Your task to perform on an android device: move a message to another label in the gmail app Image 0: 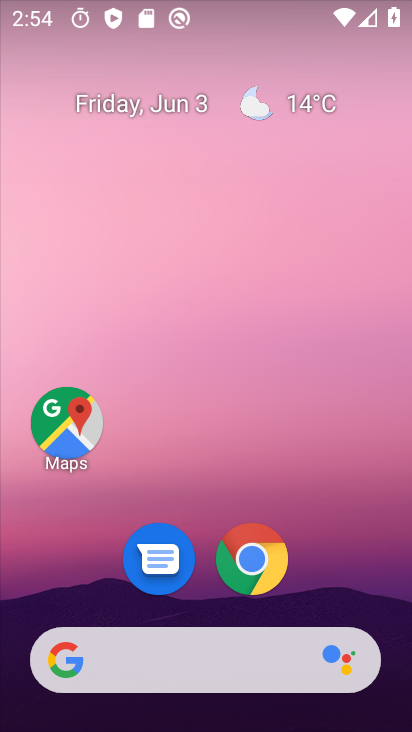
Step 0: drag from (216, 622) to (379, 682)
Your task to perform on an android device: move a message to another label in the gmail app Image 1: 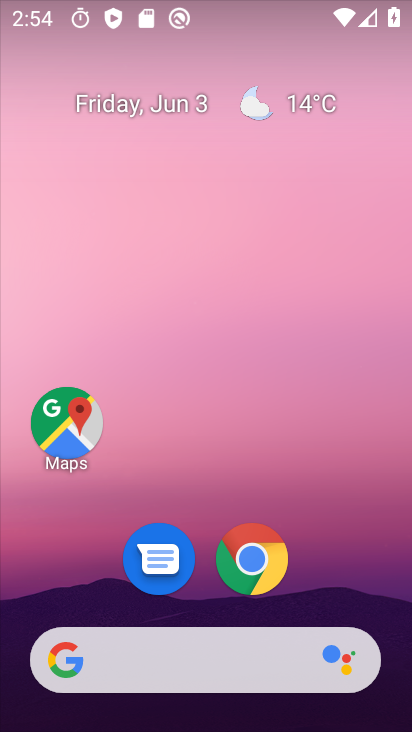
Step 1: drag from (219, 612) to (181, 19)
Your task to perform on an android device: move a message to another label in the gmail app Image 2: 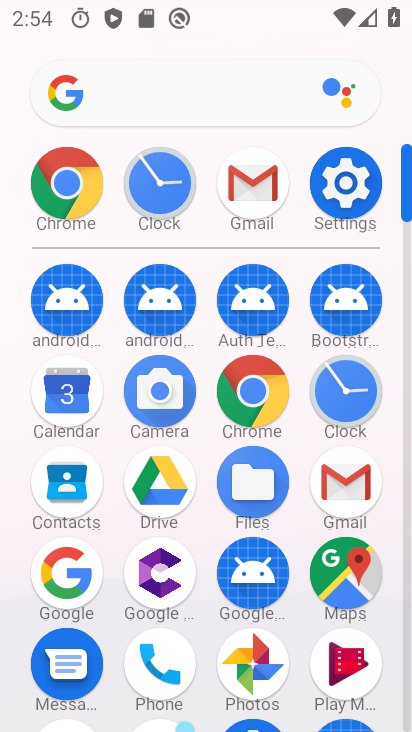
Step 2: click (362, 463)
Your task to perform on an android device: move a message to another label in the gmail app Image 3: 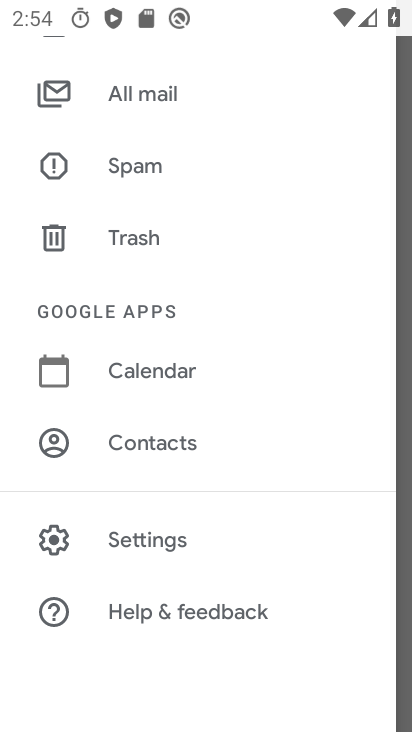
Step 3: click (131, 114)
Your task to perform on an android device: move a message to another label in the gmail app Image 4: 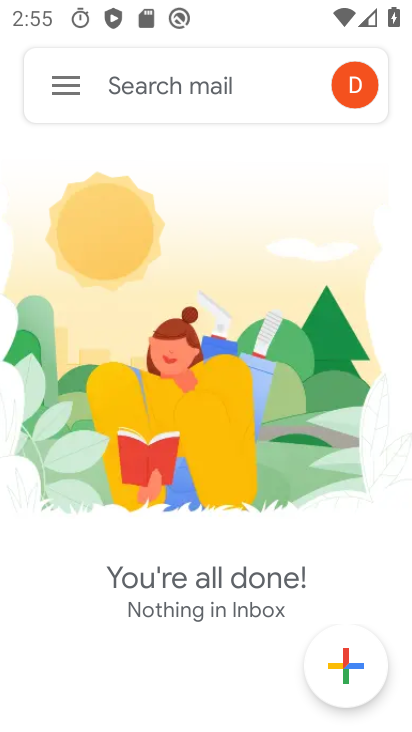
Step 4: task complete